Your task to perform on an android device: Open privacy settings Image 0: 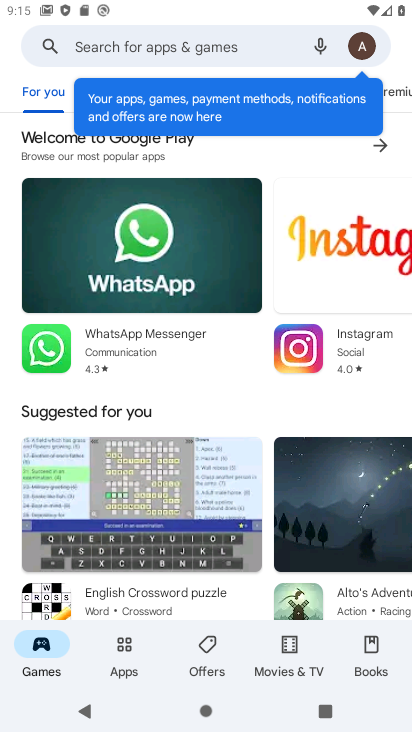
Step 0: press home button
Your task to perform on an android device: Open privacy settings Image 1: 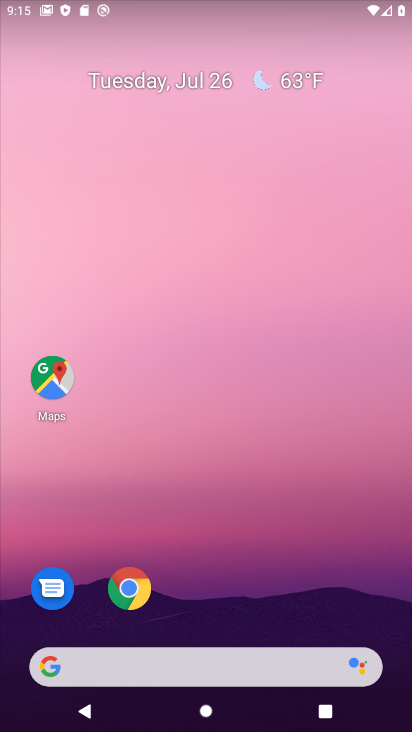
Step 1: click (127, 583)
Your task to perform on an android device: Open privacy settings Image 2: 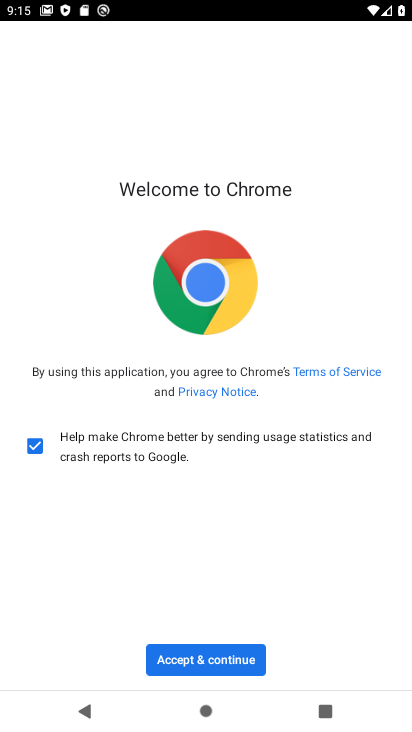
Step 2: click (171, 653)
Your task to perform on an android device: Open privacy settings Image 3: 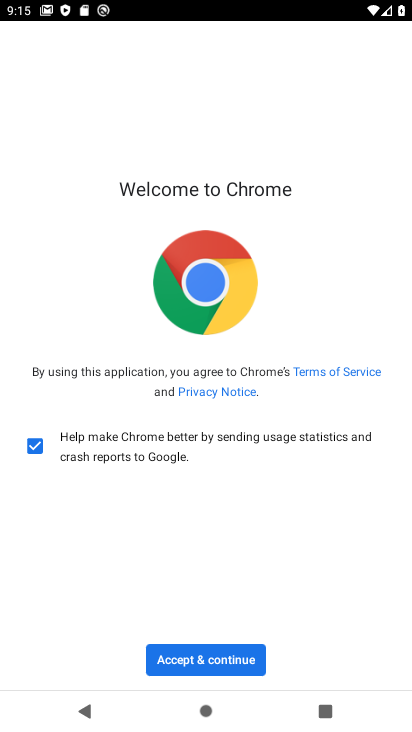
Step 3: click (171, 653)
Your task to perform on an android device: Open privacy settings Image 4: 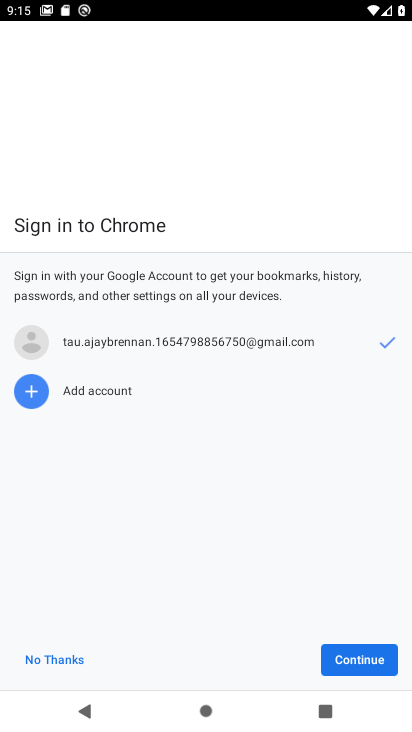
Step 4: click (358, 656)
Your task to perform on an android device: Open privacy settings Image 5: 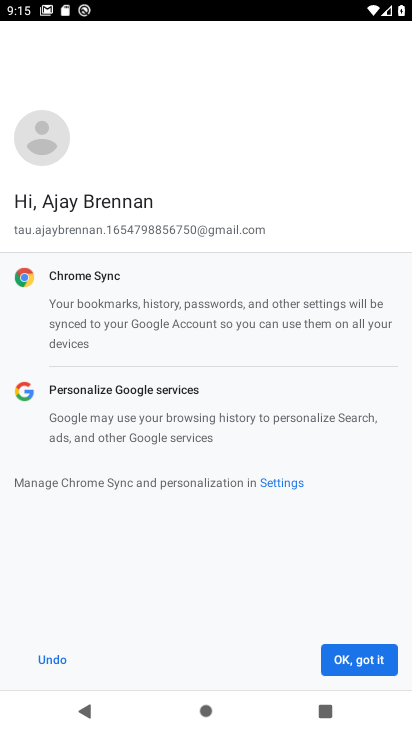
Step 5: click (348, 656)
Your task to perform on an android device: Open privacy settings Image 6: 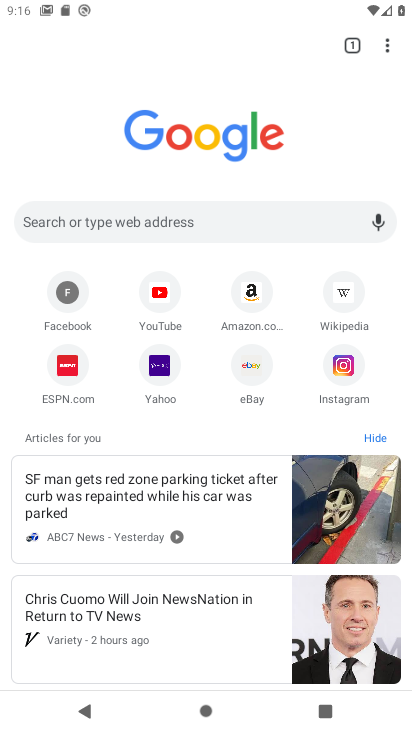
Step 6: click (388, 41)
Your task to perform on an android device: Open privacy settings Image 7: 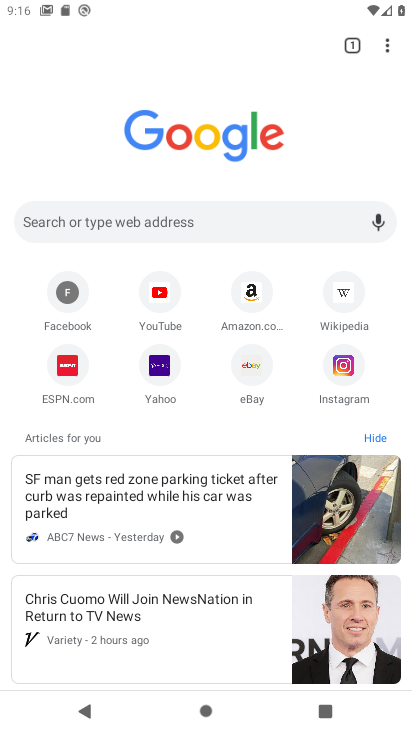
Step 7: click (386, 45)
Your task to perform on an android device: Open privacy settings Image 8: 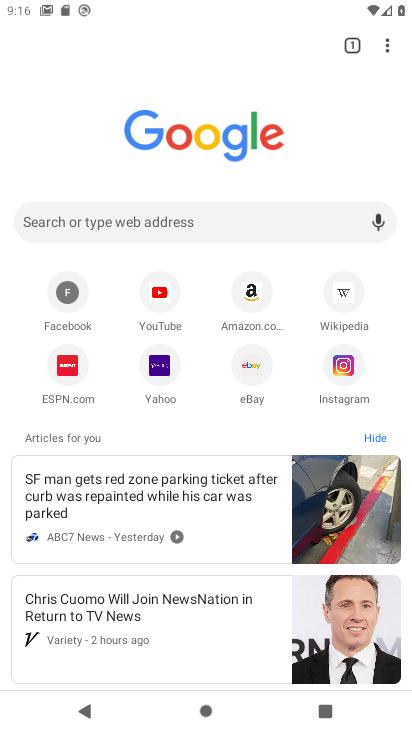
Step 8: click (383, 45)
Your task to perform on an android device: Open privacy settings Image 9: 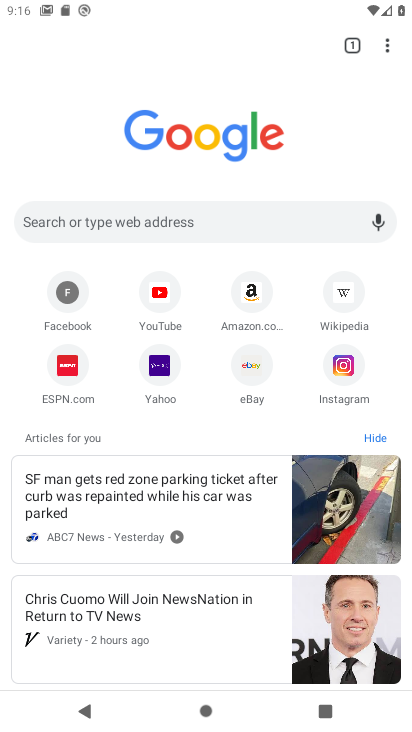
Step 9: click (383, 45)
Your task to perform on an android device: Open privacy settings Image 10: 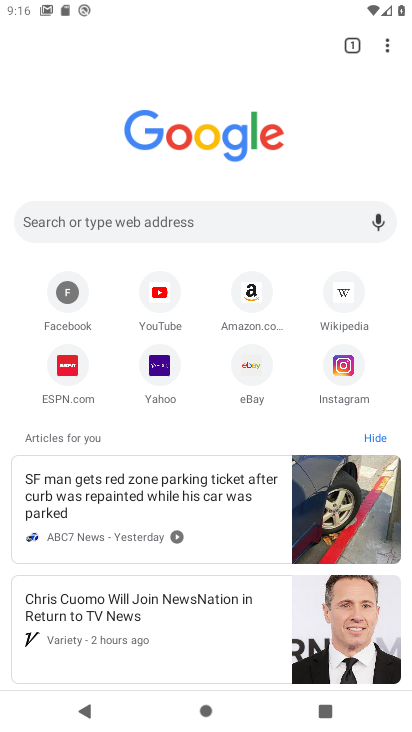
Step 10: click (384, 45)
Your task to perform on an android device: Open privacy settings Image 11: 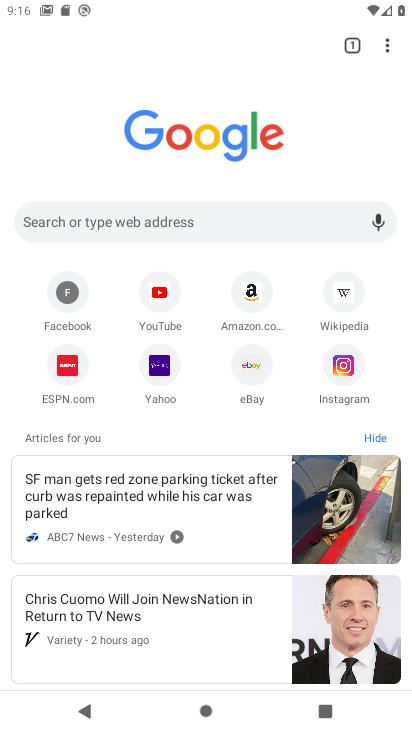
Step 11: click (384, 45)
Your task to perform on an android device: Open privacy settings Image 12: 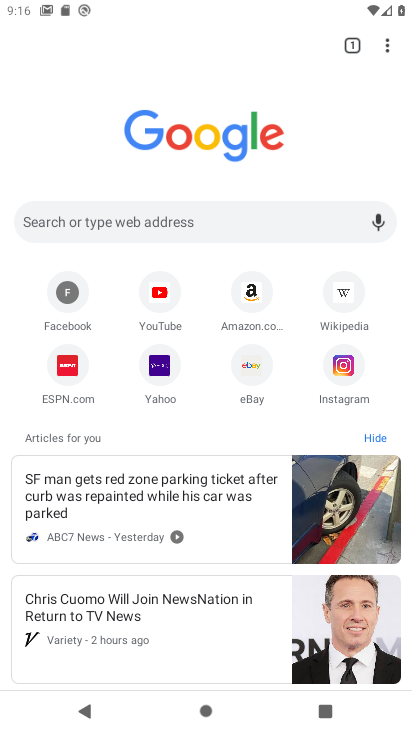
Step 12: click (384, 45)
Your task to perform on an android device: Open privacy settings Image 13: 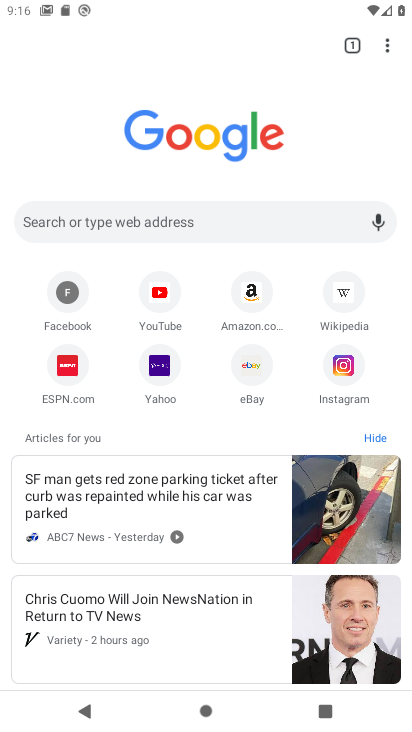
Step 13: click (384, 45)
Your task to perform on an android device: Open privacy settings Image 14: 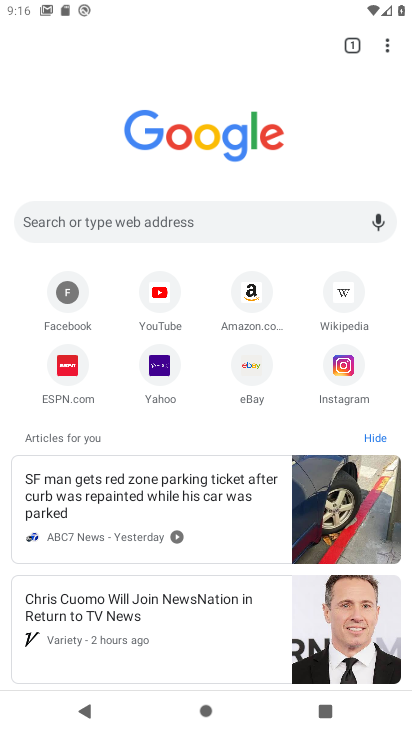
Step 14: click (384, 45)
Your task to perform on an android device: Open privacy settings Image 15: 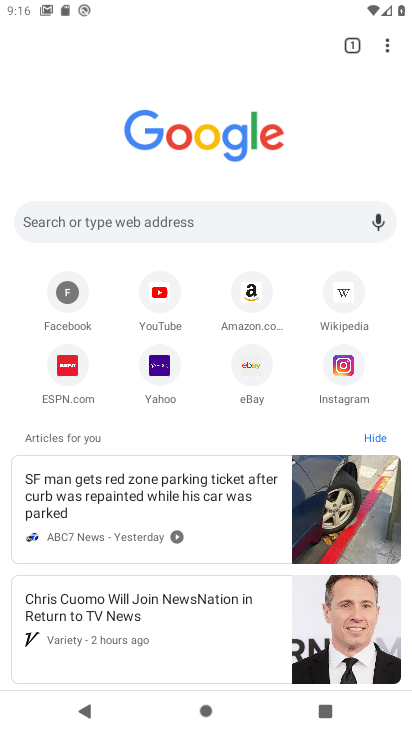
Step 15: task complete